Your task to perform on an android device: Turn on the flashlight Image 0: 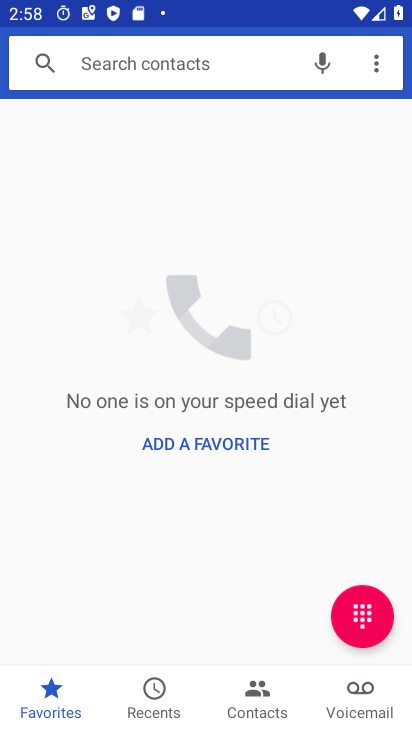
Step 0: press home button
Your task to perform on an android device: Turn on the flashlight Image 1: 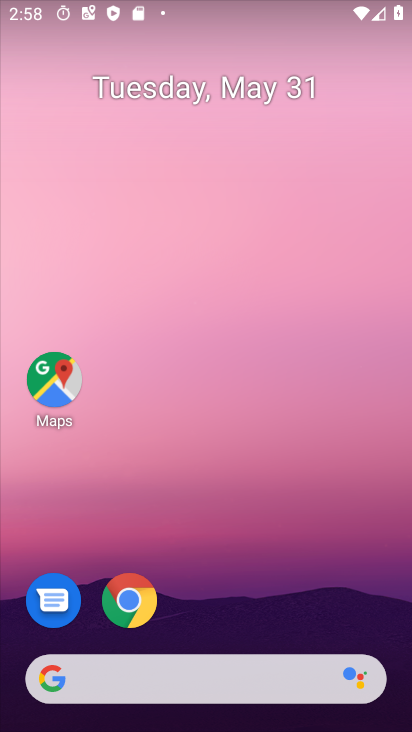
Step 1: drag from (231, 634) to (241, 0)
Your task to perform on an android device: Turn on the flashlight Image 2: 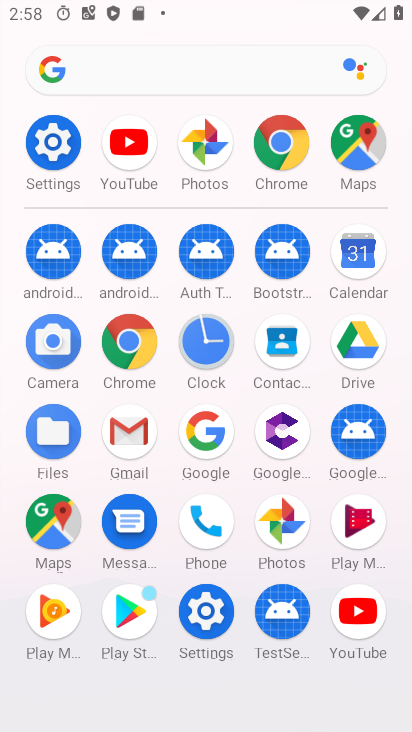
Step 2: click (205, 607)
Your task to perform on an android device: Turn on the flashlight Image 3: 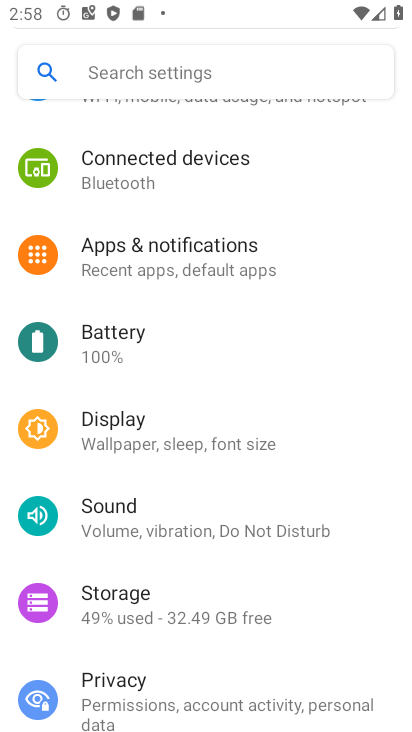
Step 3: drag from (142, 298) to (151, 729)
Your task to perform on an android device: Turn on the flashlight Image 4: 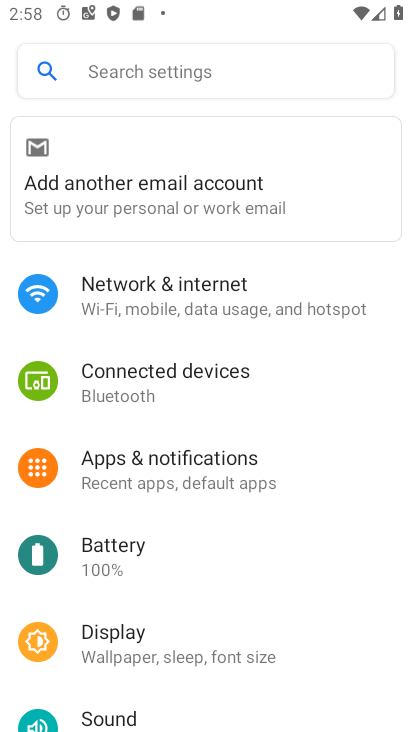
Step 4: click (129, 60)
Your task to perform on an android device: Turn on the flashlight Image 5: 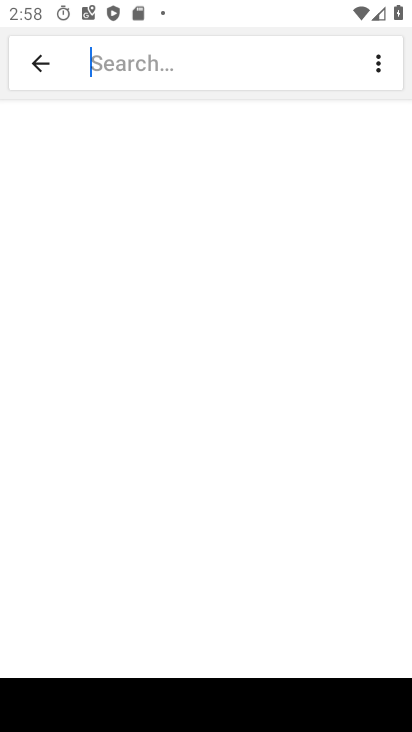
Step 5: type "flashlight"
Your task to perform on an android device: Turn on the flashlight Image 6: 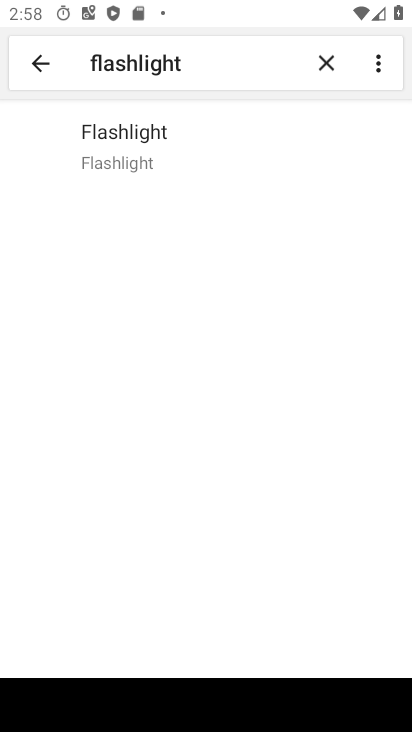
Step 6: click (160, 143)
Your task to perform on an android device: Turn on the flashlight Image 7: 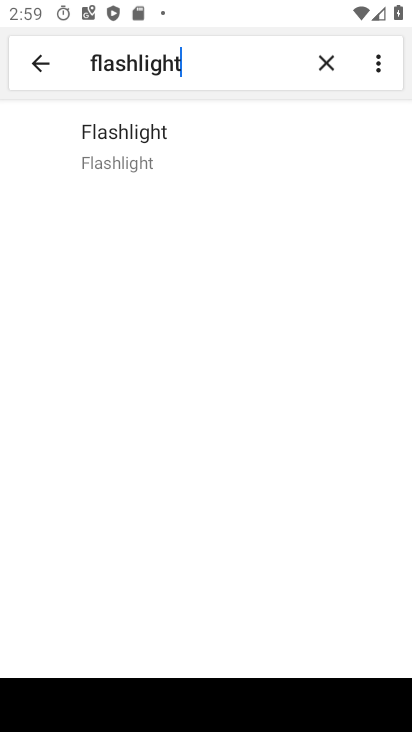
Step 7: click (159, 144)
Your task to perform on an android device: Turn on the flashlight Image 8: 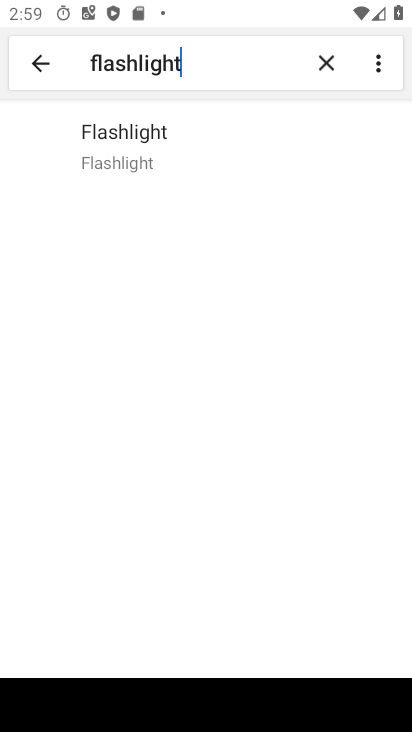
Step 8: task complete